Your task to perform on an android device: star an email in the gmail app Image 0: 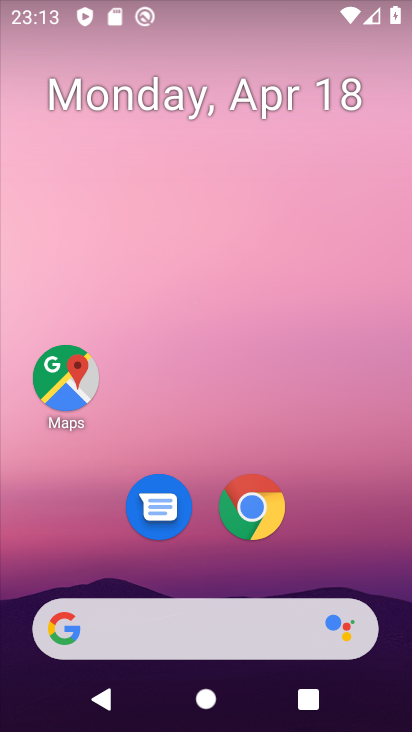
Step 0: drag from (352, 519) to (408, 95)
Your task to perform on an android device: star an email in the gmail app Image 1: 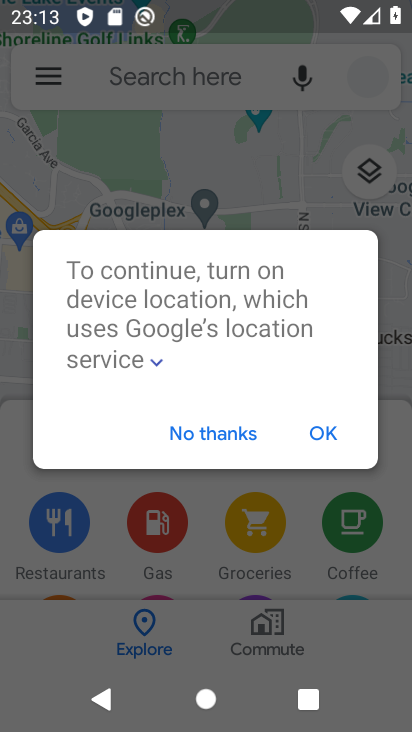
Step 1: press home button
Your task to perform on an android device: star an email in the gmail app Image 2: 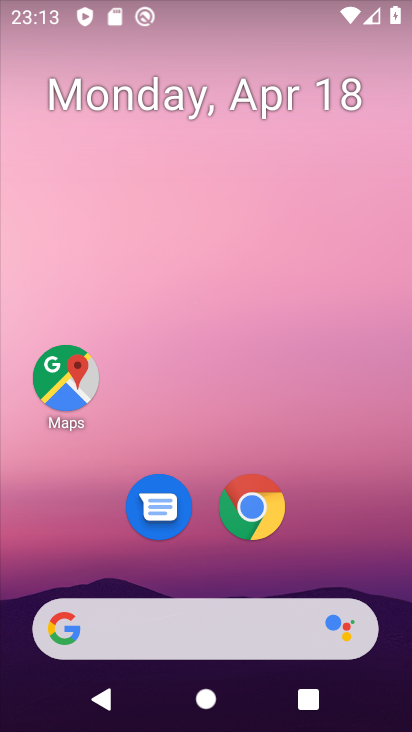
Step 2: drag from (321, 542) to (331, 97)
Your task to perform on an android device: star an email in the gmail app Image 3: 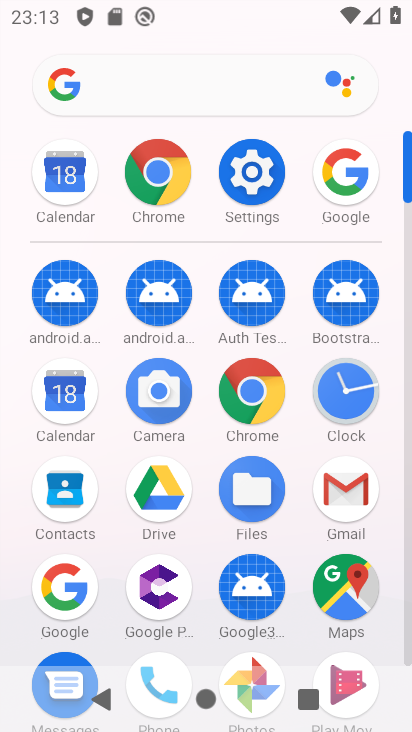
Step 3: click (349, 479)
Your task to perform on an android device: star an email in the gmail app Image 4: 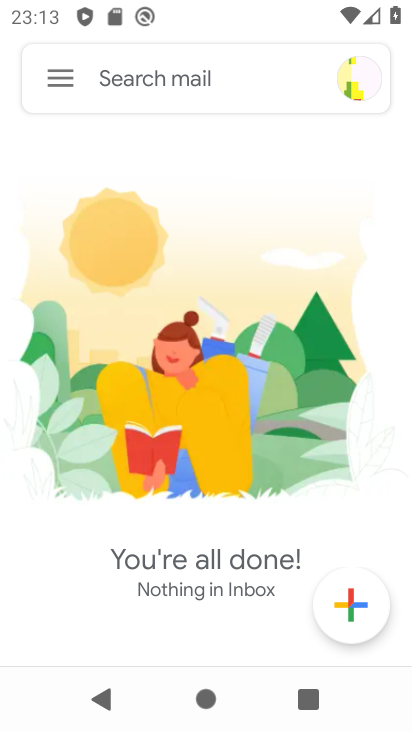
Step 4: click (61, 74)
Your task to perform on an android device: star an email in the gmail app Image 5: 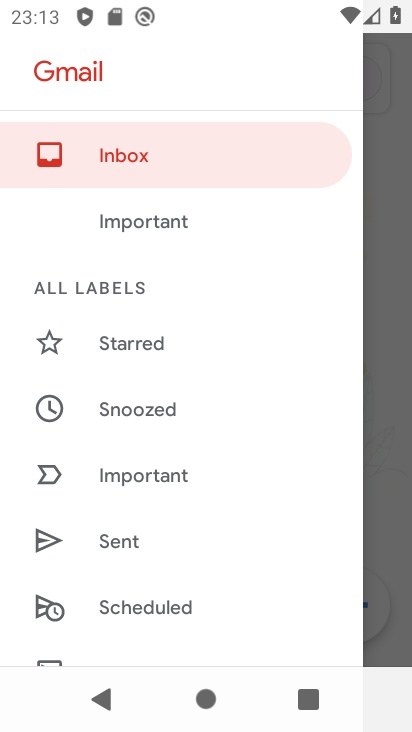
Step 5: drag from (186, 505) to (172, 166)
Your task to perform on an android device: star an email in the gmail app Image 6: 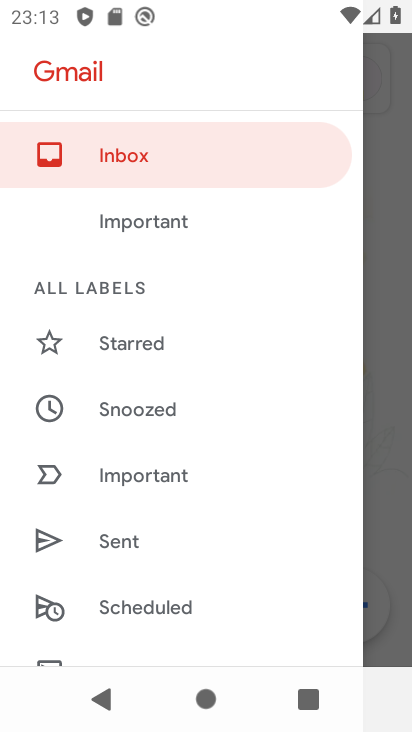
Step 6: drag from (189, 599) to (287, 164)
Your task to perform on an android device: star an email in the gmail app Image 7: 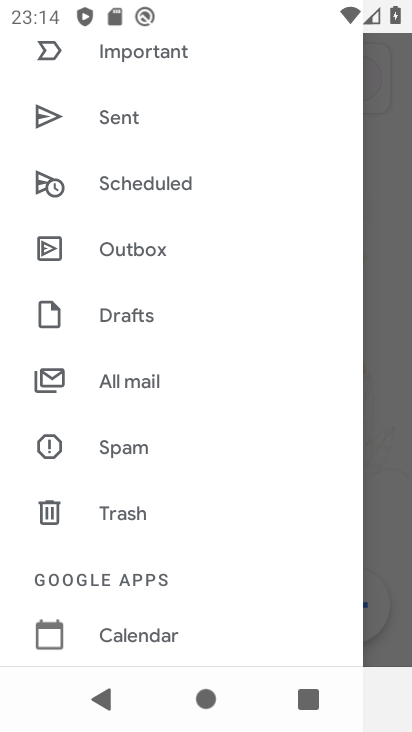
Step 7: click (180, 385)
Your task to perform on an android device: star an email in the gmail app Image 8: 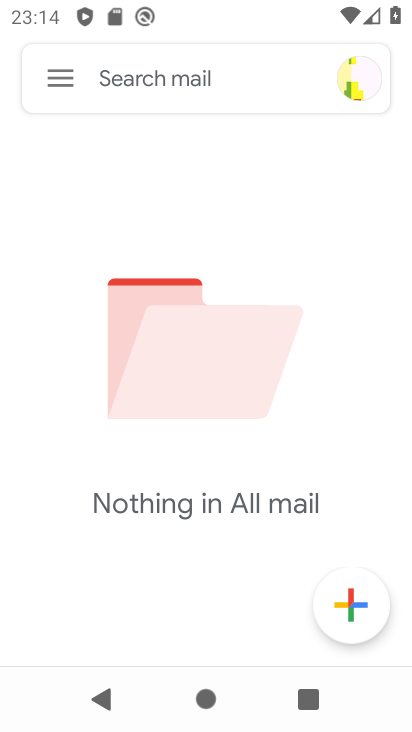
Step 8: task complete